Your task to perform on an android device: set the stopwatch Image 0: 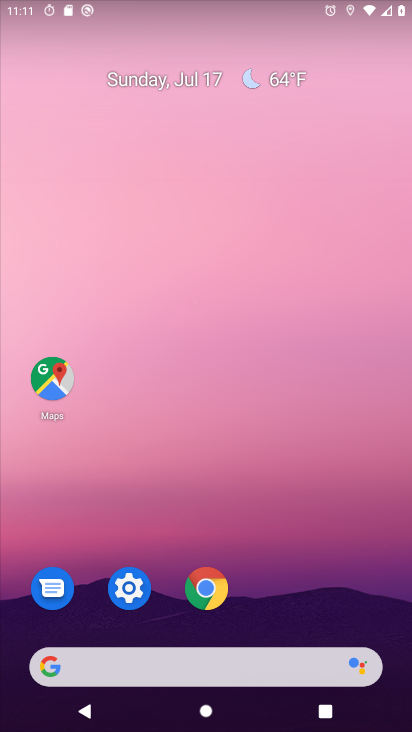
Step 0: click (219, 0)
Your task to perform on an android device: set the stopwatch Image 1: 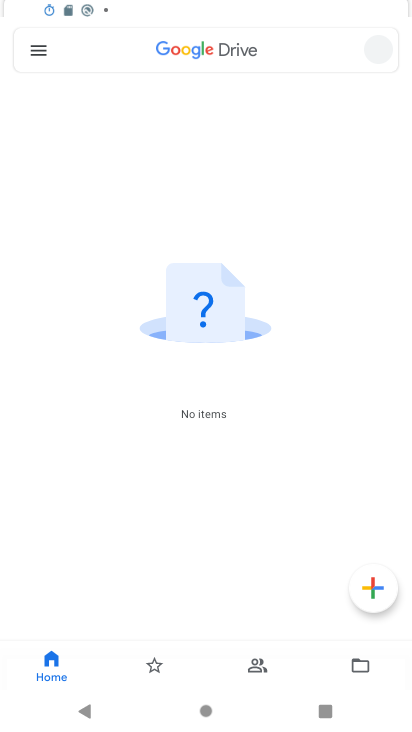
Step 1: drag from (291, 649) to (197, 59)
Your task to perform on an android device: set the stopwatch Image 2: 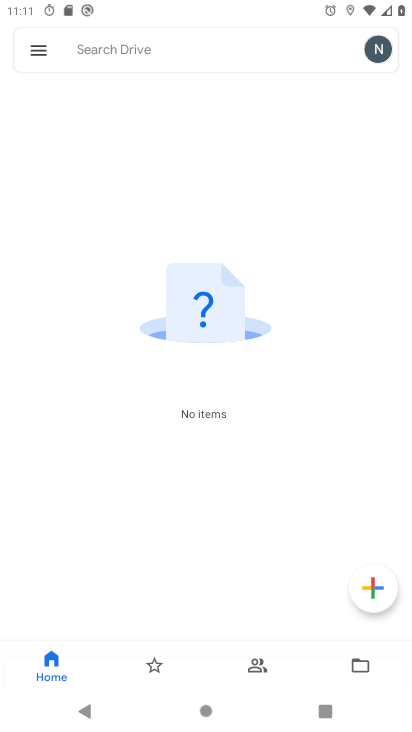
Step 2: press back button
Your task to perform on an android device: set the stopwatch Image 3: 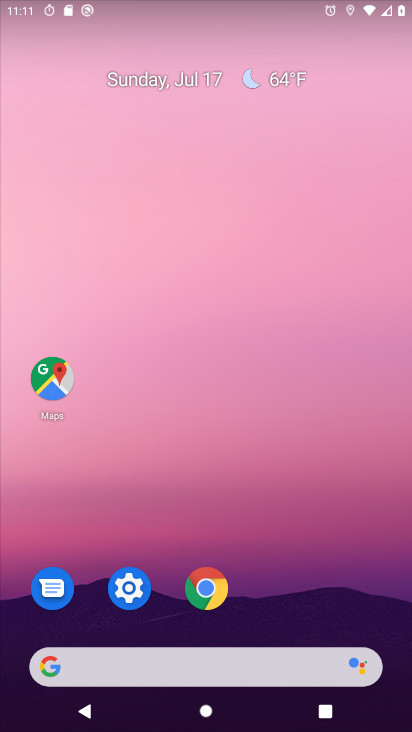
Step 3: drag from (262, 686) to (190, 83)
Your task to perform on an android device: set the stopwatch Image 4: 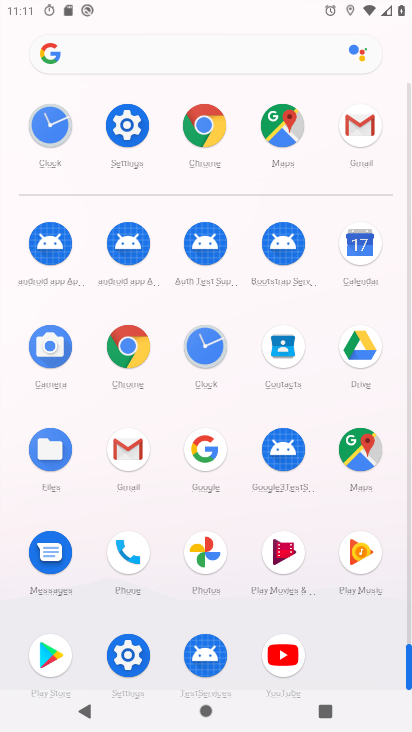
Step 4: drag from (265, 613) to (239, 28)
Your task to perform on an android device: set the stopwatch Image 5: 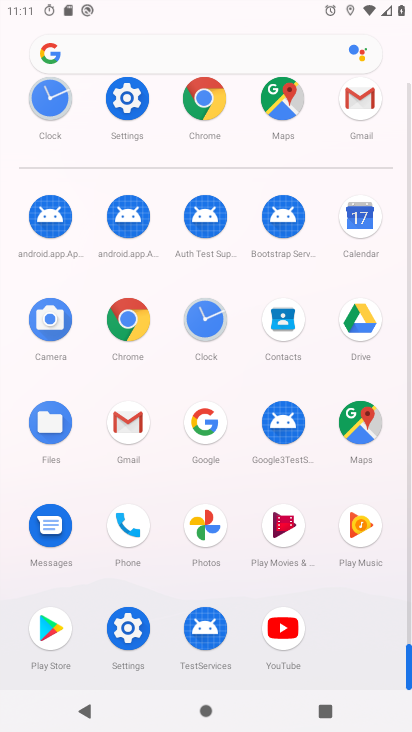
Step 5: click (213, 319)
Your task to perform on an android device: set the stopwatch Image 6: 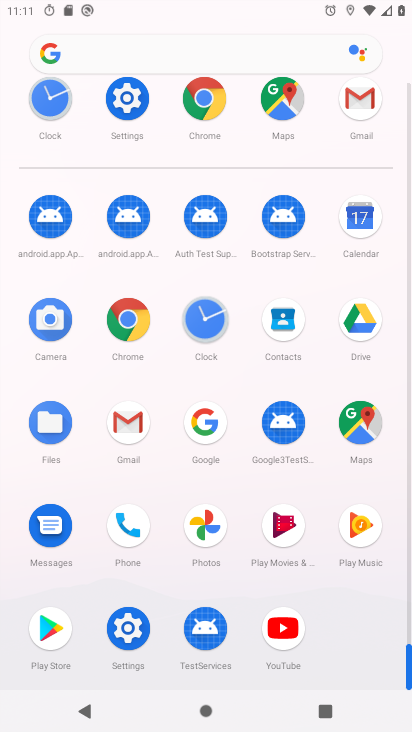
Step 6: click (212, 315)
Your task to perform on an android device: set the stopwatch Image 7: 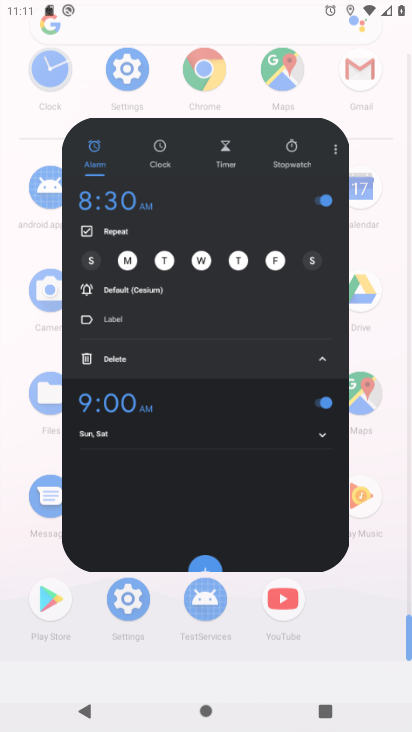
Step 7: click (212, 315)
Your task to perform on an android device: set the stopwatch Image 8: 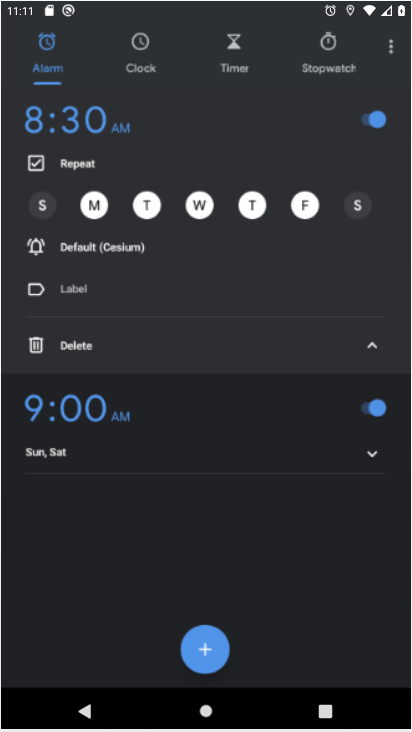
Step 8: click (212, 315)
Your task to perform on an android device: set the stopwatch Image 9: 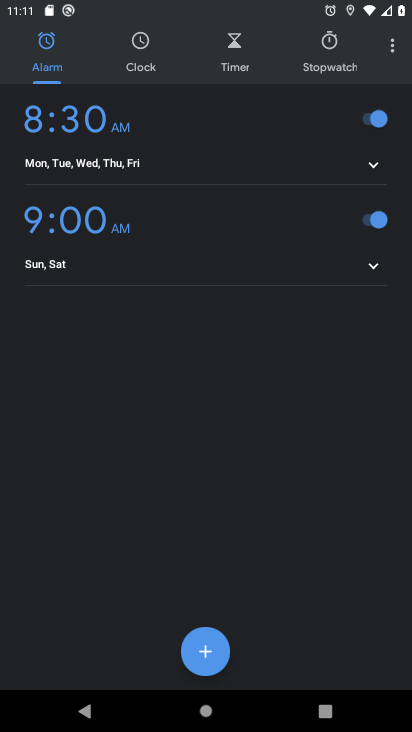
Step 9: click (346, 48)
Your task to perform on an android device: set the stopwatch Image 10: 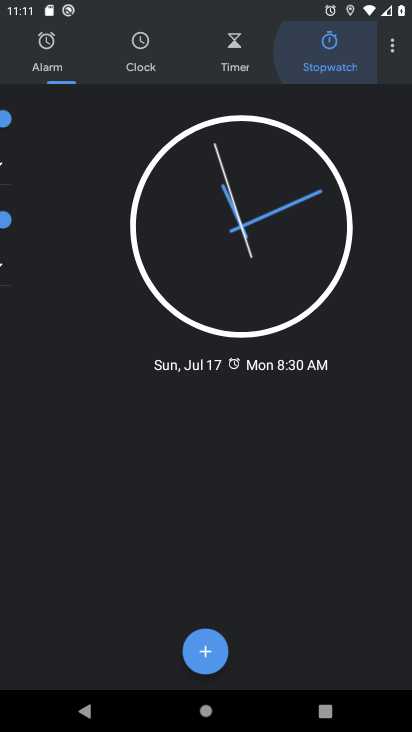
Step 10: click (338, 45)
Your task to perform on an android device: set the stopwatch Image 11: 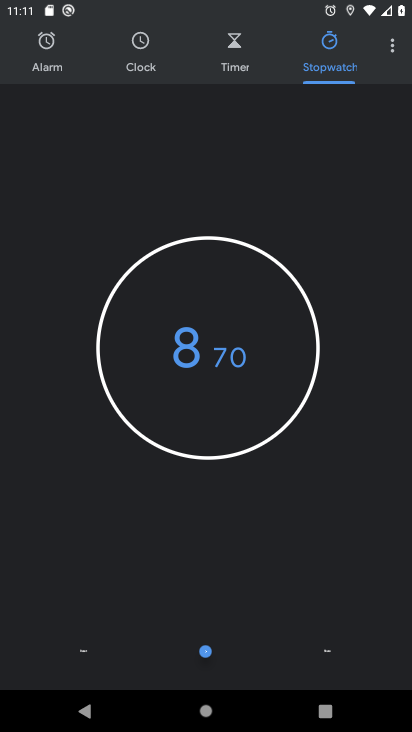
Step 11: click (337, 45)
Your task to perform on an android device: set the stopwatch Image 12: 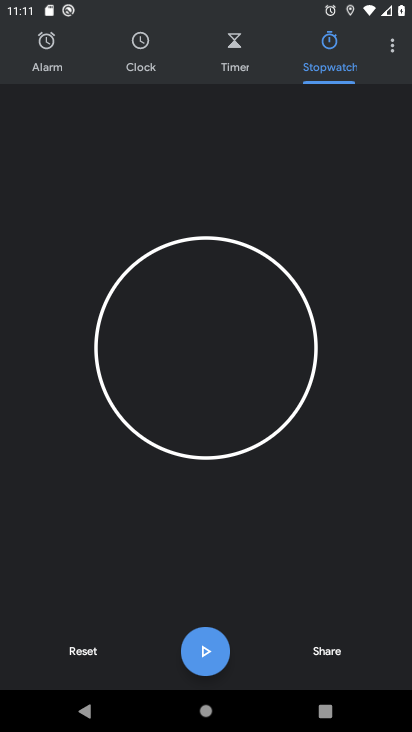
Step 12: click (205, 658)
Your task to perform on an android device: set the stopwatch Image 13: 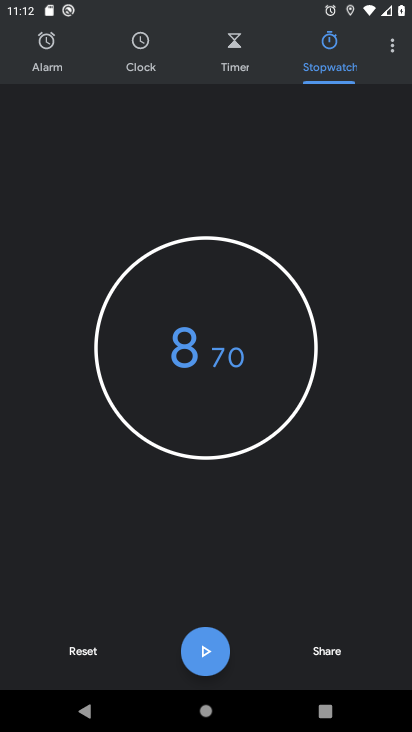
Step 13: click (208, 659)
Your task to perform on an android device: set the stopwatch Image 14: 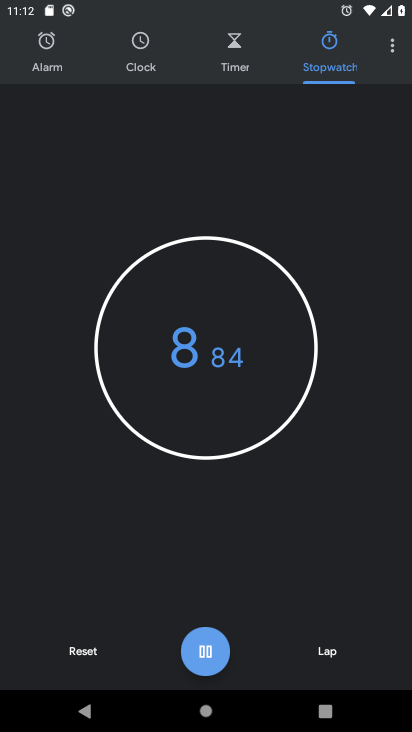
Step 14: click (209, 660)
Your task to perform on an android device: set the stopwatch Image 15: 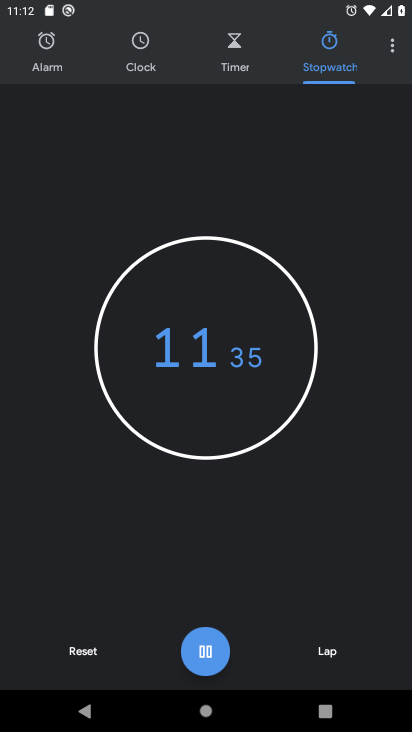
Step 15: click (209, 657)
Your task to perform on an android device: set the stopwatch Image 16: 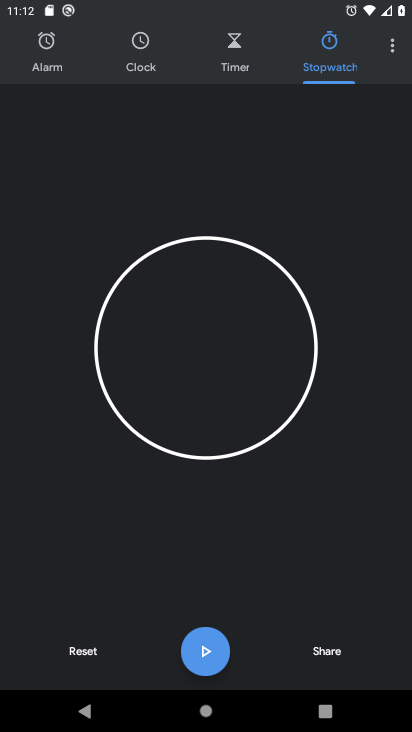
Step 16: click (203, 637)
Your task to perform on an android device: set the stopwatch Image 17: 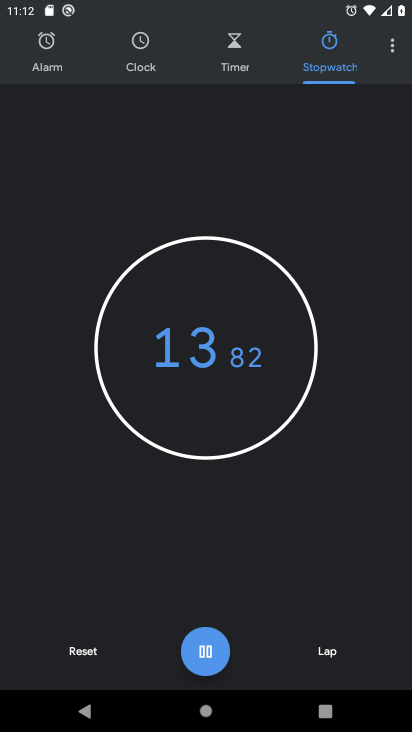
Step 17: click (200, 647)
Your task to perform on an android device: set the stopwatch Image 18: 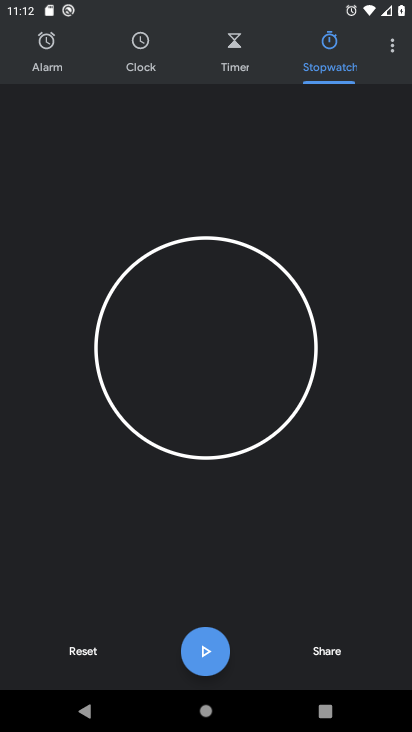
Step 18: task complete